Your task to perform on an android device: Show me productivity apps on the Play Store Image 0: 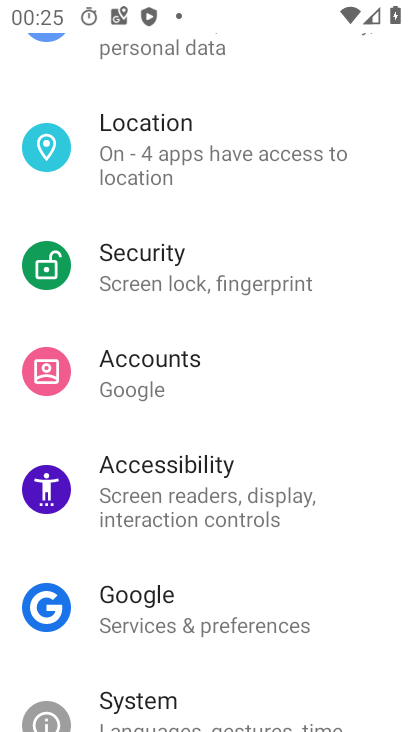
Step 0: press home button
Your task to perform on an android device: Show me productivity apps on the Play Store Image 1: 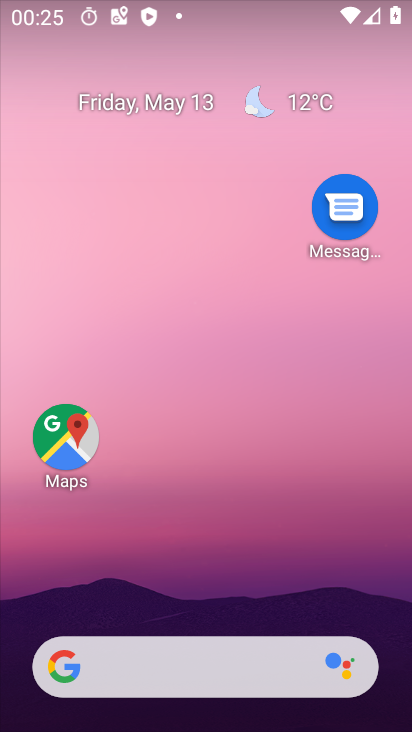
Step 1: drag from (238, 545) to (263, 117)
Your task to perform on an android device: Show me productivity apps on the Play Store Image 2: 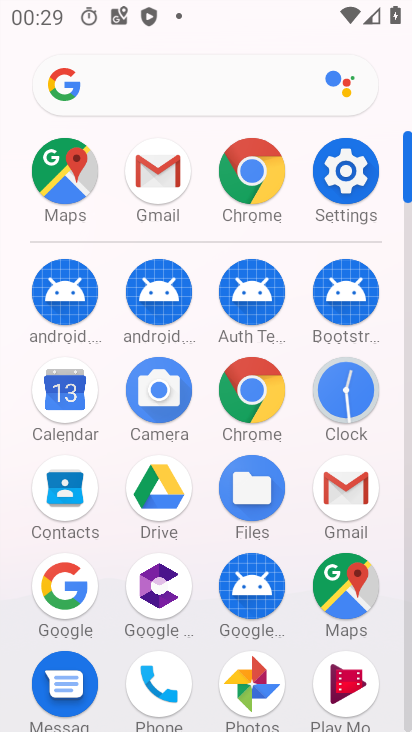
Step 2: drag from (410, 705) to (328, 731)
Your task to perform on an android device: Show me productivity apps on the Play Store Image 3: 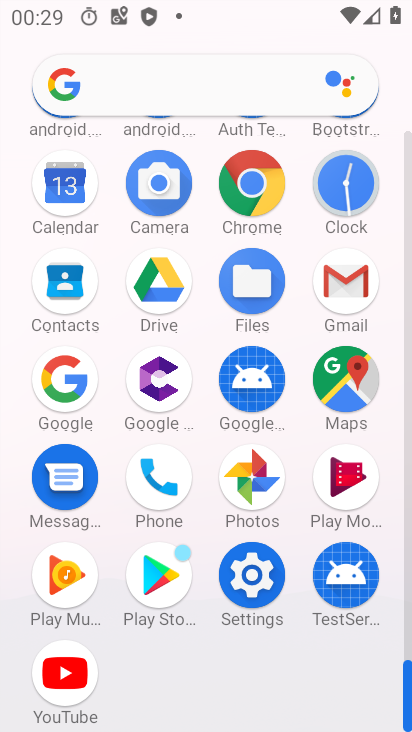
Step 3: click (159, 595)
Your task to perform on an android device: Show me productivity apps on the Play Store Image 4: 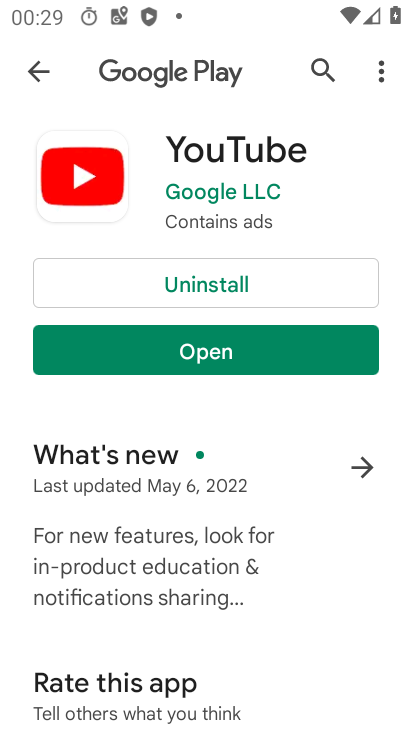
Step 4: click (35, 76)
Your task to perform on an android device: Show me productivity apps on the Play Store Image 5: 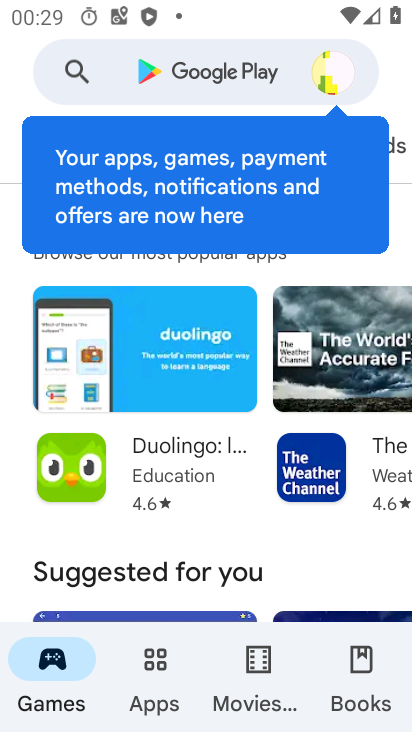
Step 5: click (145, 78)
Your task to perform on an android device: Show me productivity apps on the Play Store Image 6: 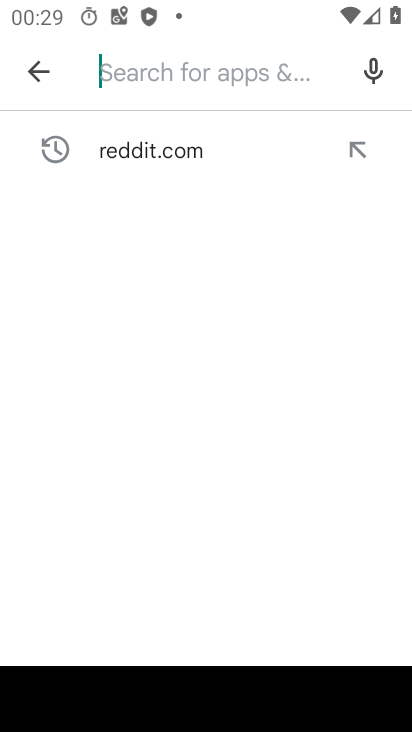
Step 6: type " productivity apps"
Your task to perform on an android device: Show me productivity apps on the Play Store Image 7: 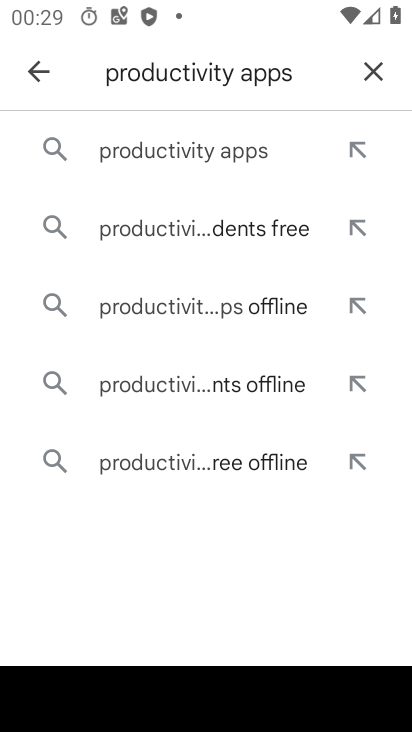
Step 7: click (266, 155)
Your task to perform on an android device: Show me productivity apps on the Play Store Image 8: 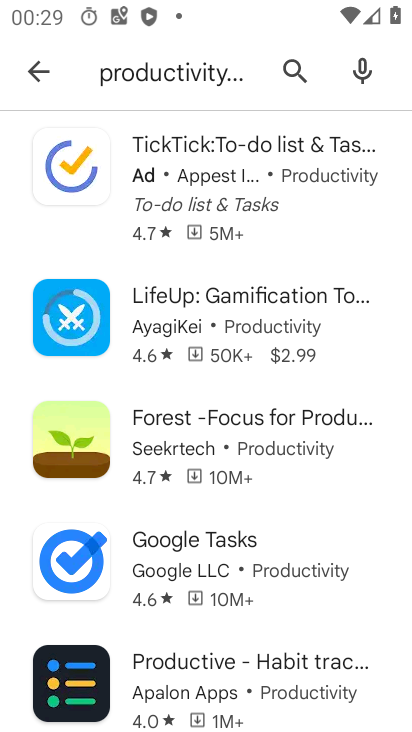
Step 8: task complete